Your task to perform on an android device: Open Google Chrome and click the shortcut for Amazon.com Image 0: 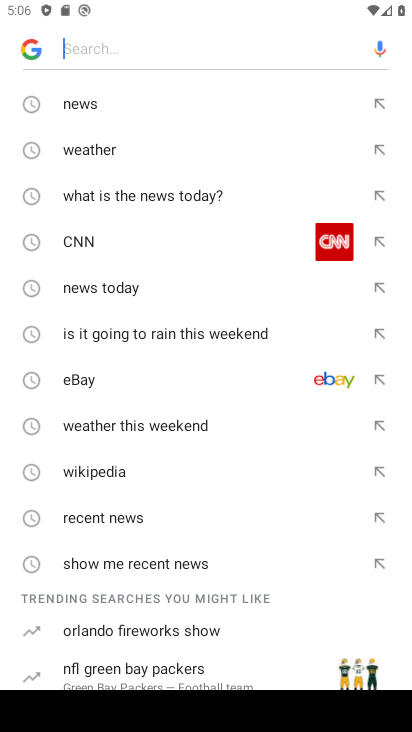
Step 0: press home button
Your task to perform on an android device: Open Google Chrome and click the shortcut for Amazon.com Image 1: 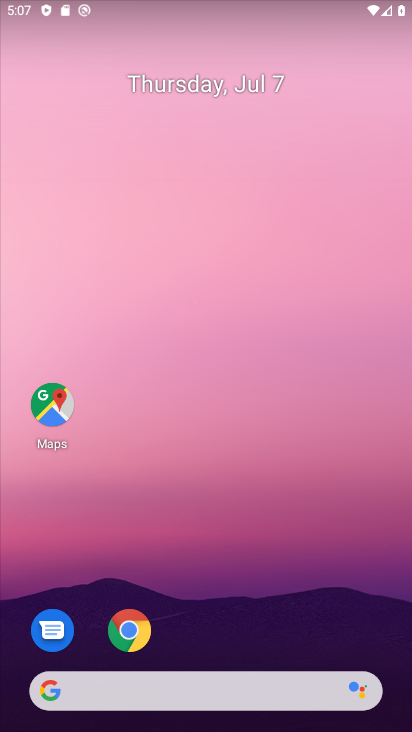
Step 1: drag from (214, 665) to (227, 712)
Your task to perform on an android device: Open Google Chrome and click the shortcut for Amazon.com Image 2: 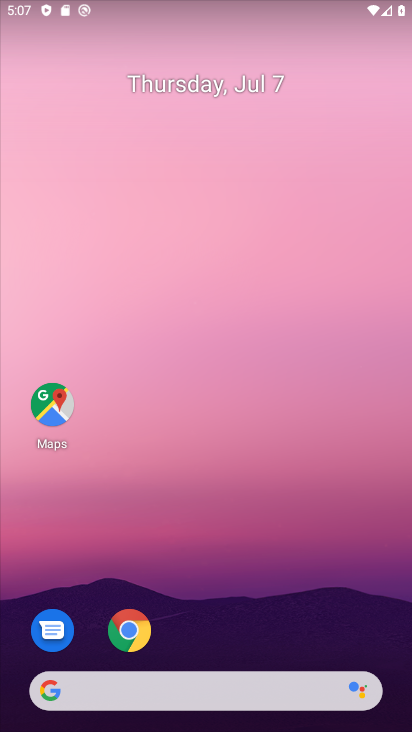
Step 2: click (216, 655)
Your task to perform on an android device: Open Google Chrome and click the shortcut for Amazon.com Image 3: 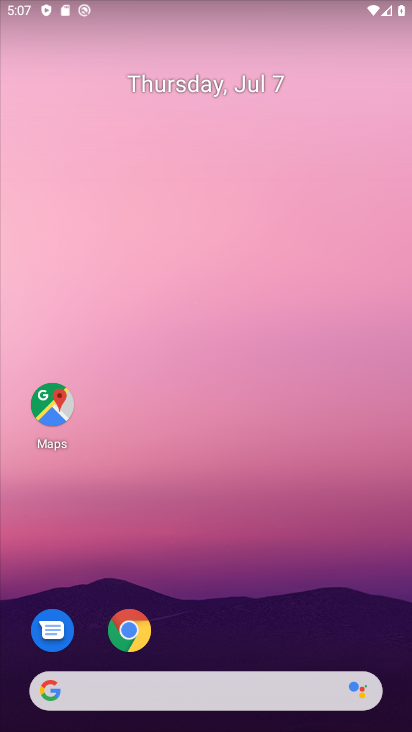
Step 3: drag from (216, 622) to (216, 131)
Your task to perform on an android device: Open Google Chrome and click the shortcut for Amazon.com Image 4: 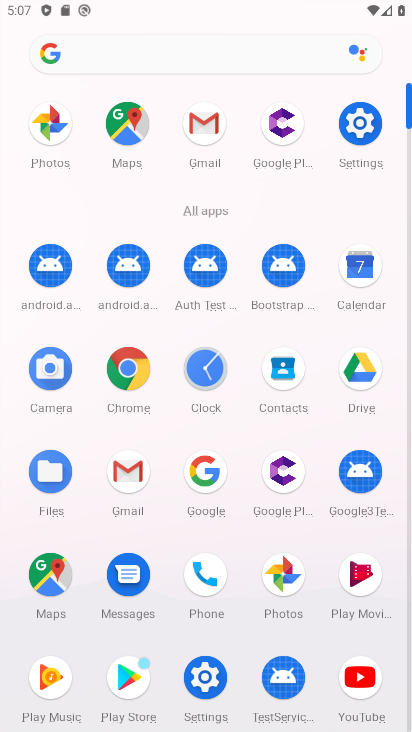
Step 4: click (117, 390)
Your task to perform on an android device: Open Google Chrome and click the shortcut for Amazon.com Image 5: 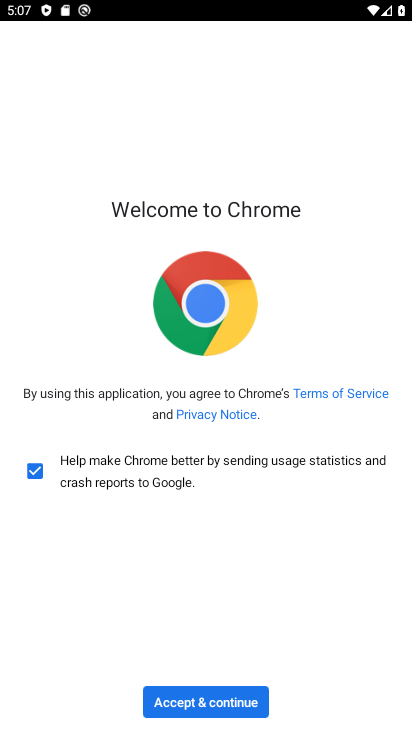
Step 5: click (192, 698)
Your task to perform on an android device: Open Google Chrome and click the shortcut for Amazon.com Image 6: 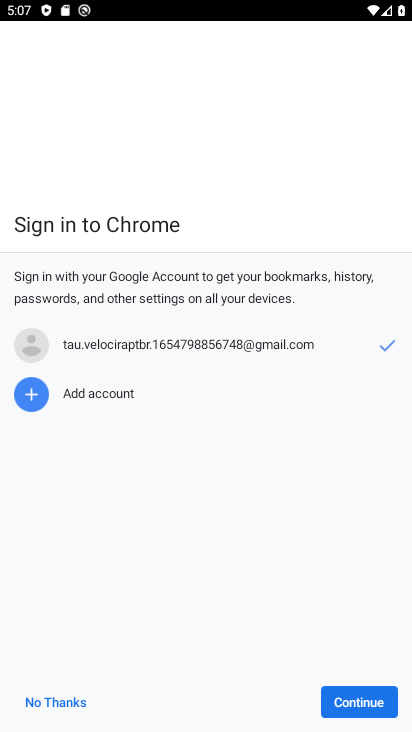
Step 6: click (382, 699)
Your task to perform on an android device: Open Google Chrome and click the shortcut for Amazon.com Image 7: 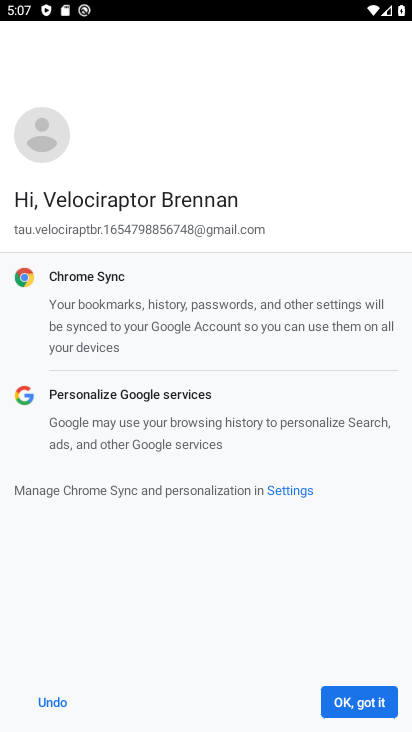
Step 7: click (382, 699)
Your task to perform on an android device: Open Google Chrome and click the shortcut for Amazon.com Image 8: 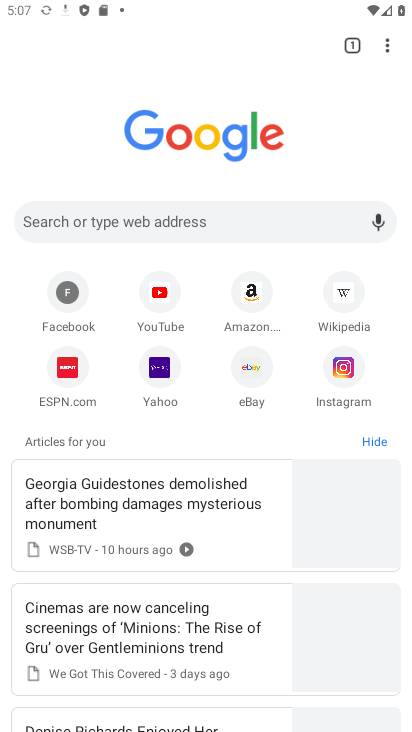
Step 8: click (258, 309)
Your task to perform on an android device: Open Google Chrome and click the shortcut for Amazon.com Image 9: 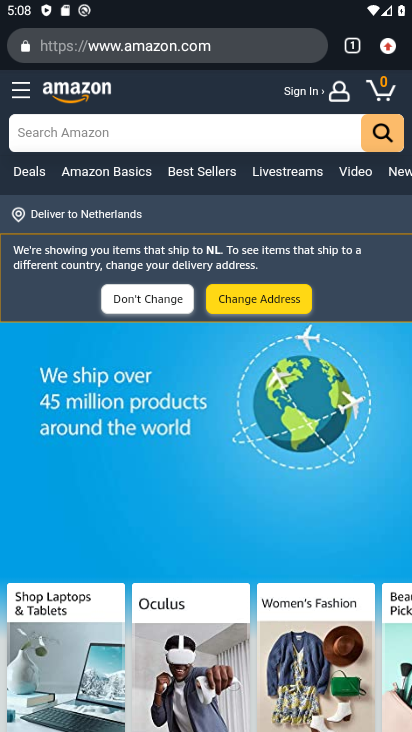
Step 9: task complete